Your task to perform on an android device: toggle priority inbox in the gmail app Image 0: 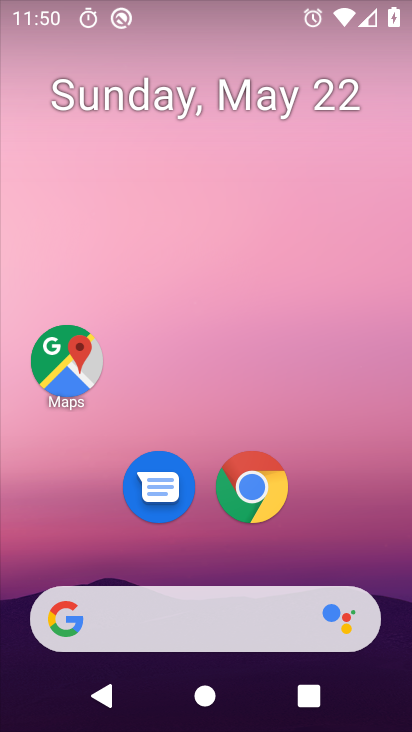
Step 0: drag from (374, 535) to (339, 110)
Your task to perform on an android device: toggle priority inbox in the gmail app Image 1: 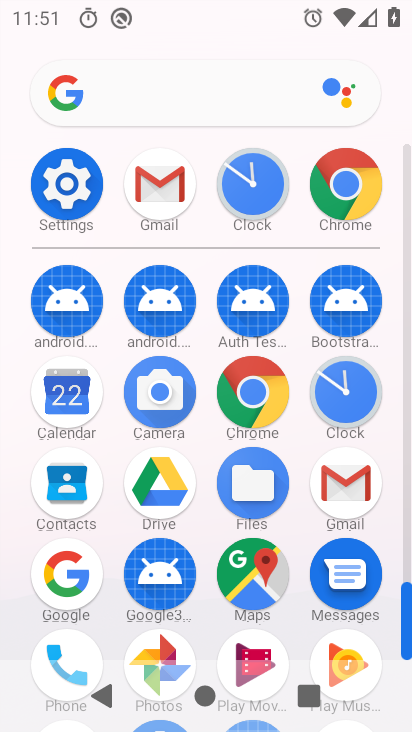
Step 1: click (324, 482)
Your task to perform on an android device: toggle priority inbox in the gmail app Image 2: 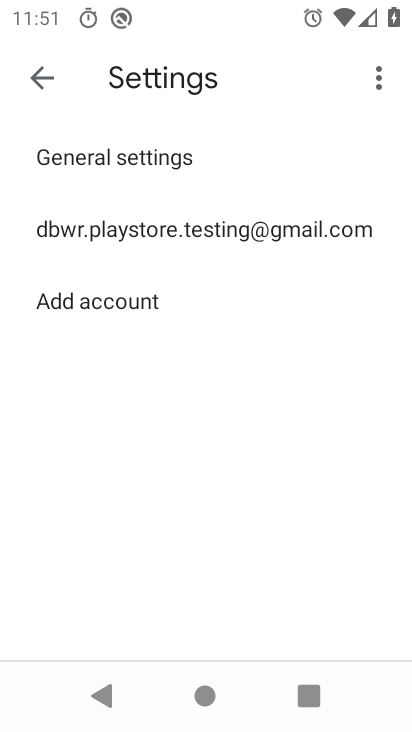
Step 2: click (193, 227)
Your task to perform on an android device: toggle priority inbox in the gmail app Image 3: 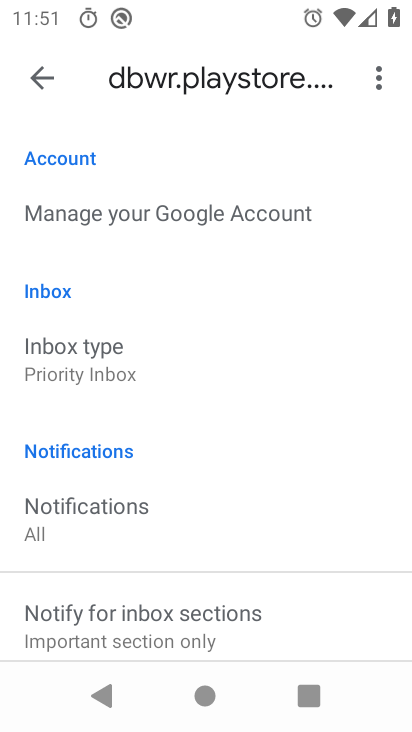
Step 3: click (125, 371)
Your task to perform on an android device: toggle priority inbox in the gmail app Image 4: 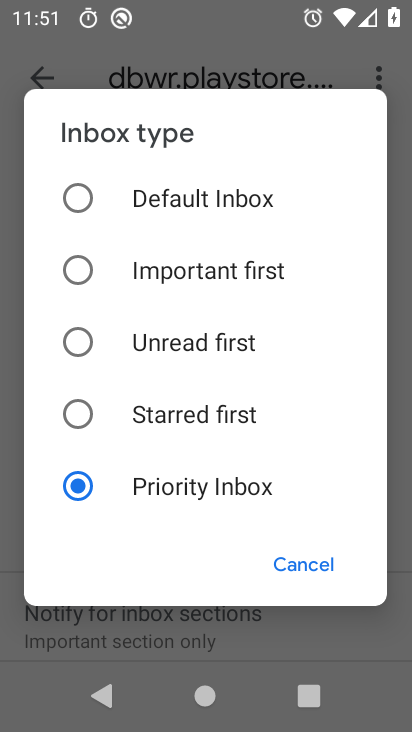
Step 4: click (68, 191)
Your task to perform on an android device: toggle priority inbox in the gmail app Image 5: 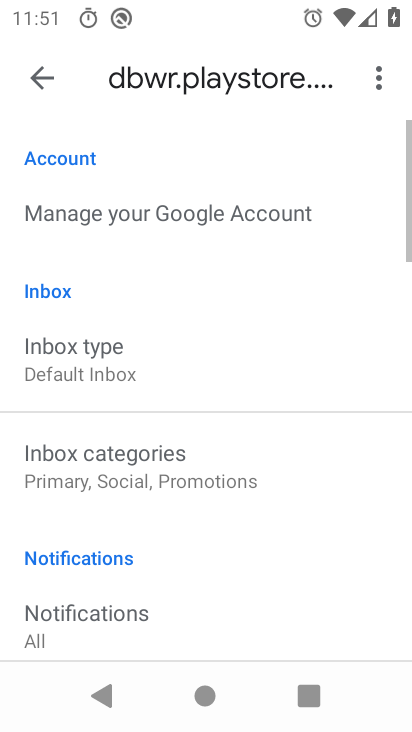
Step 5: task complete